Your task to perform on an android device: Open Wikipedia Image 0: 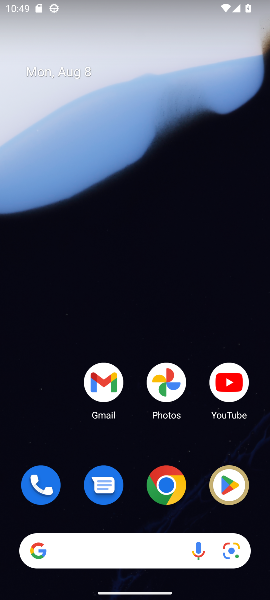
Step 0: click (157, 487)
Your task to perform on an android device: Open Wikipedia Image 1: 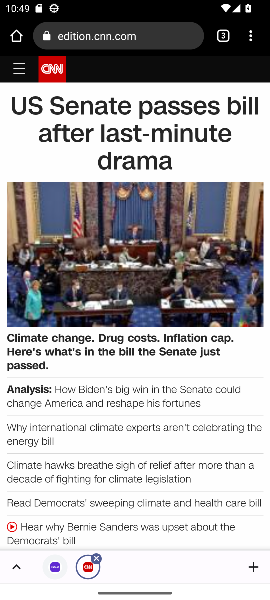
Step 1: click (146, 34)
Your task to perform on an android device: Open Wikipedia Image 2: 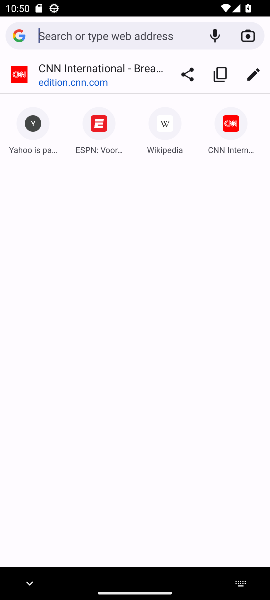
Step 2: type " Wikipedia"
Your task to perform on an android device: Open Wikipedia Image 3: 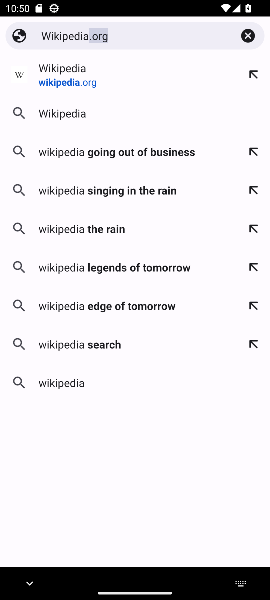
Step 3: click (83, 78)
Your task to perform on an android device: Open Wikipedia Image 4: 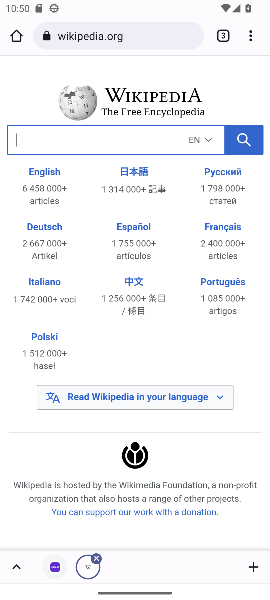
Step 4: task complete